Your task to perform on an android device: Open my contact list Image 0: 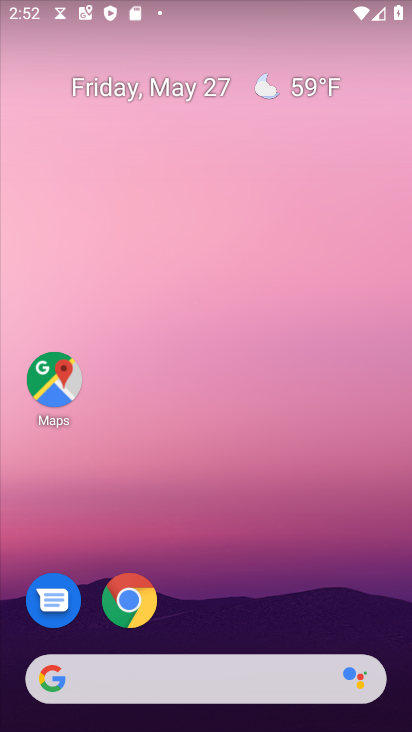
Step 0: drag from (267, 605) to (220, 56)
Your task to perform on an android device: Open my contact list Image 1: 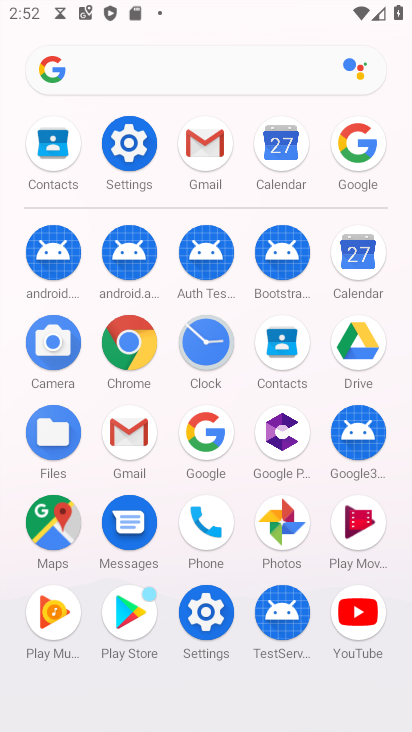
Step 1: click (285, 351)
Your task to perform on an android device: Open my contact list Image 2: 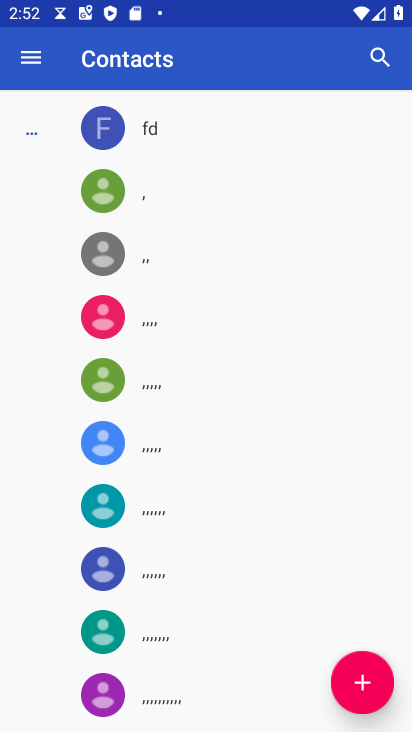
Step 2: task complete